Your task to perform on an android device: turn off sleep mode Image 0: 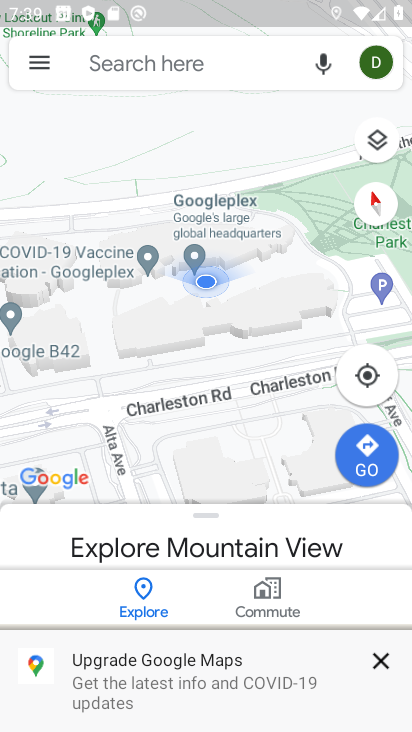
Step 0: press home button
Your task to perform on an android device: turn off sleep mode Image 1: 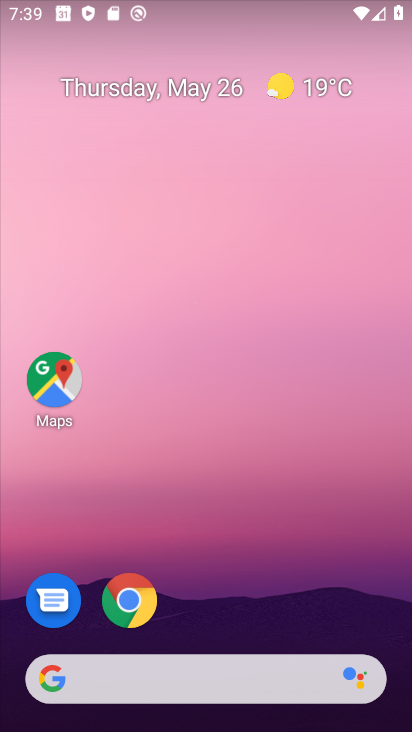
Step 1: drag from (258, 671) to (272, 167)
Your task to perform on an android device: turn off sleep mode Image 2: 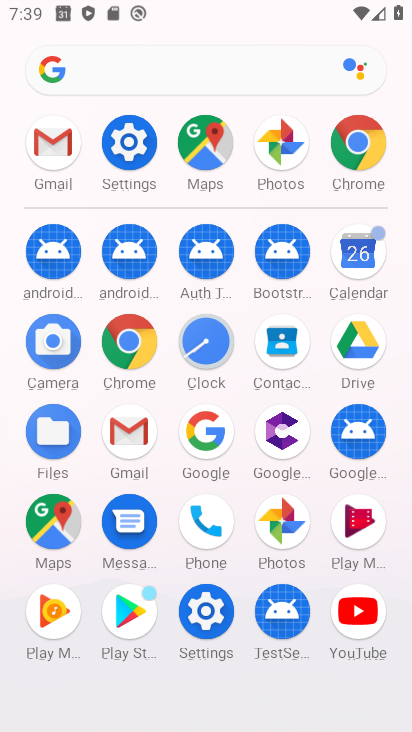
Step 2: click (133, 166)
Your task to perform on an android device: turn off sleep mode Image 3: 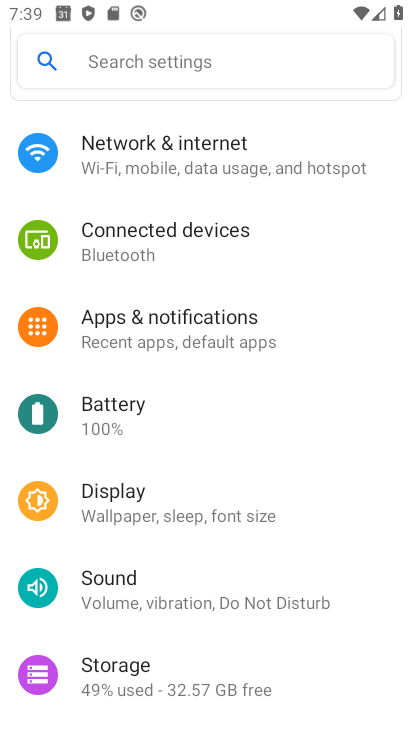
Step 3: click (151, 46)
Your task to perform on an android device: turn off sleep mode Image 4: 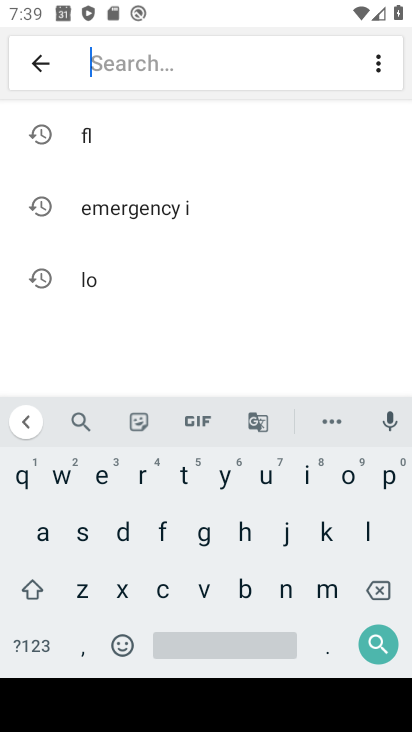
Step 4: click (83, 530)
Your task to perform on an android device: turn off sleep mode Image 5: 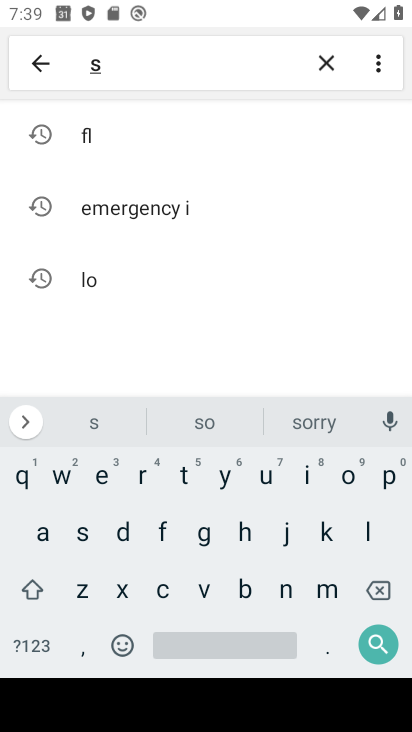
Step 5: click (365, 525)
Your task to perform on an android device: turn off sleep mode Image 6: 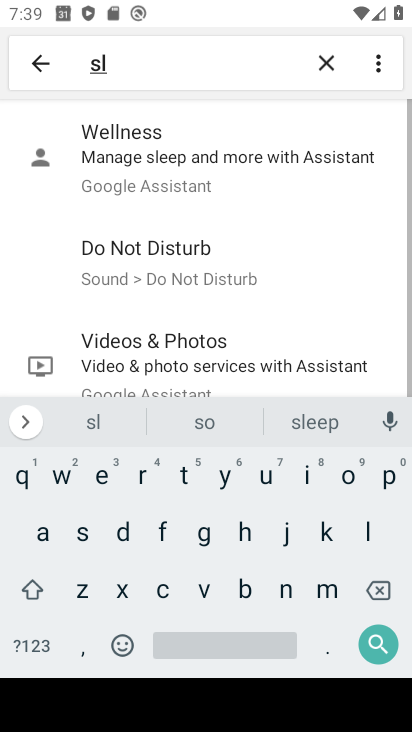
Step 6: click (170, 150)
Your task to perform on an android device: turn off sleep mode Image 7: 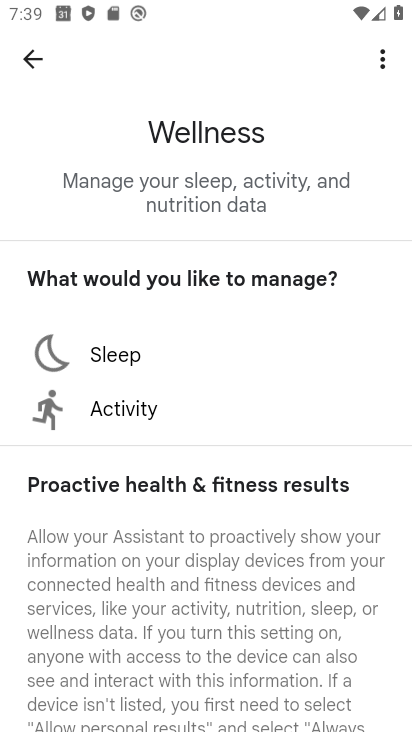
Step 7: click (116, 354)
Your task to perform on an android device: turn off sleep mode Image 8: 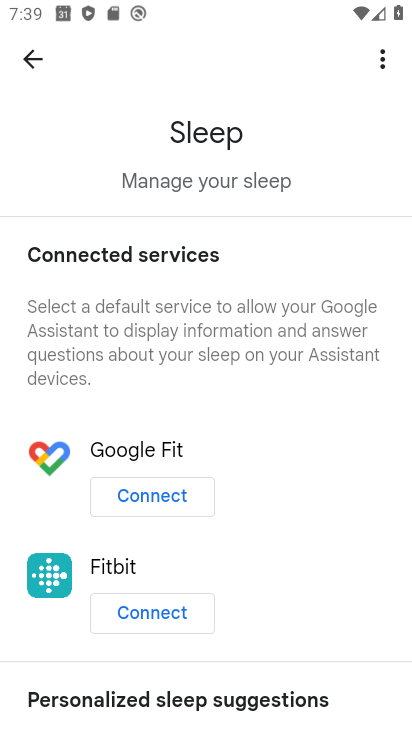
Step 8: task complete